Your task to perform on an android device: turn on javascript in the chrome app Image 0: 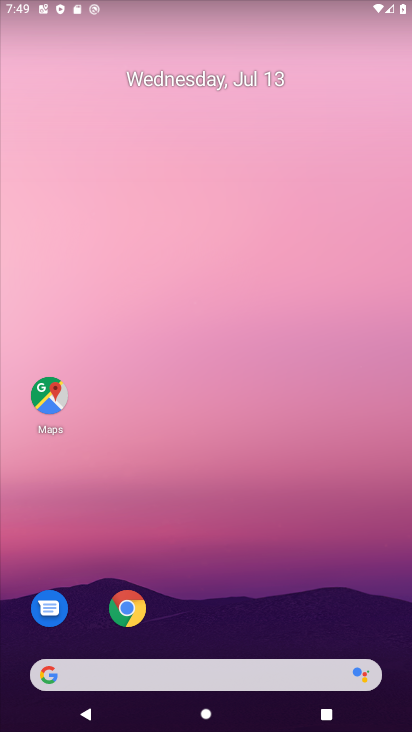
Step 0: click (112, 621)
Your task to perform on an android device: turn on javascript in the chrome app Image 1: 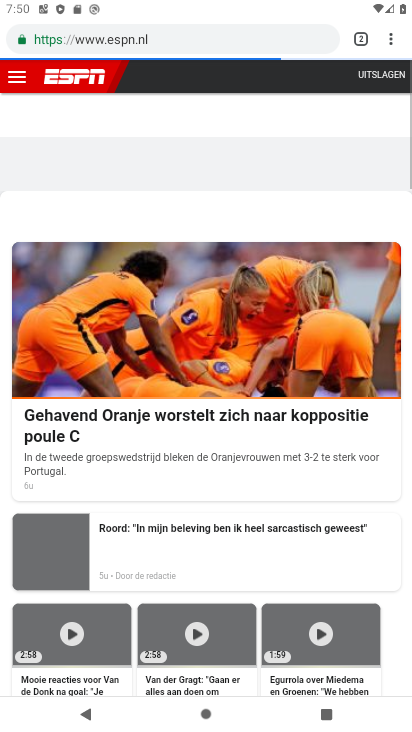
Step 1: drag from (389, 44) to (261, 481)
Your task to perform on an android device: turn on javascript in the chrome app Image 2: 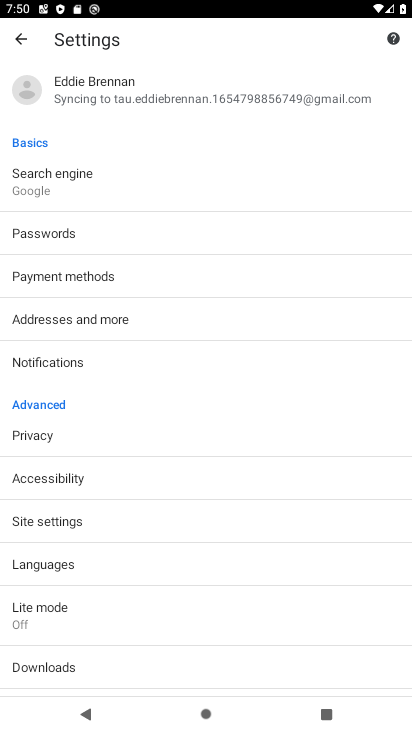
Step 2: drag from (152, 573) to (122, 347)
Your task to perform on an android device: turn on javascript in the chrome app Image 3: 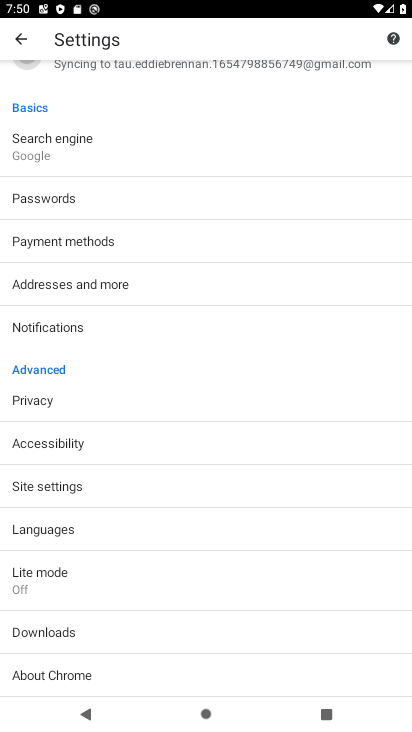
Step 3: click (77, 488)
Your task to perform on an android device: turn on javascript in the chrome app Image 4: 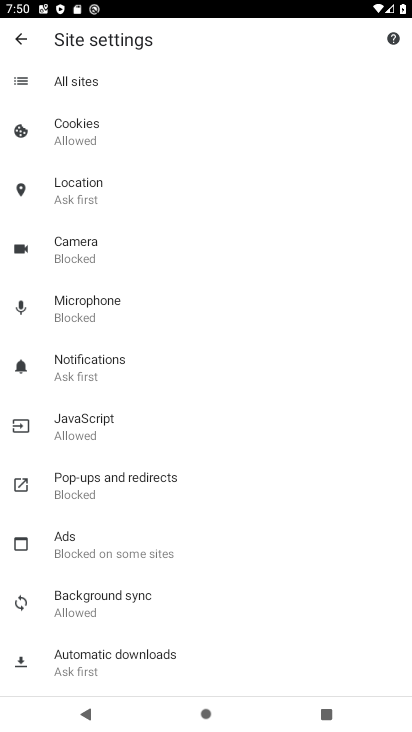
Step 4: click (72, 427)
Your task to perform on an android device: turn on javascript in the chrome app Image 5: 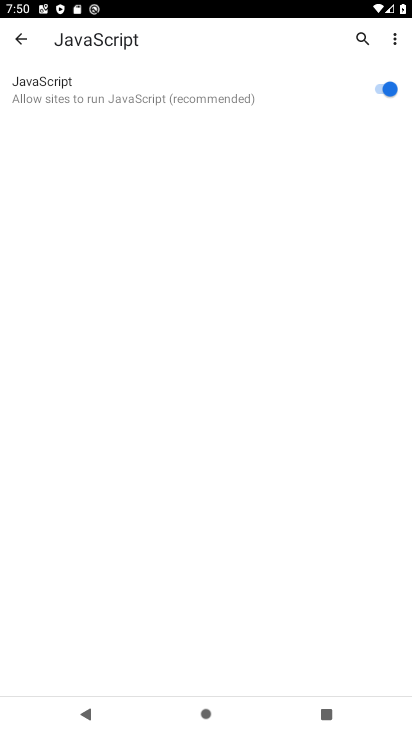
Step 5: task complete